Your task to perform on an android device: Open eBay Image 0: 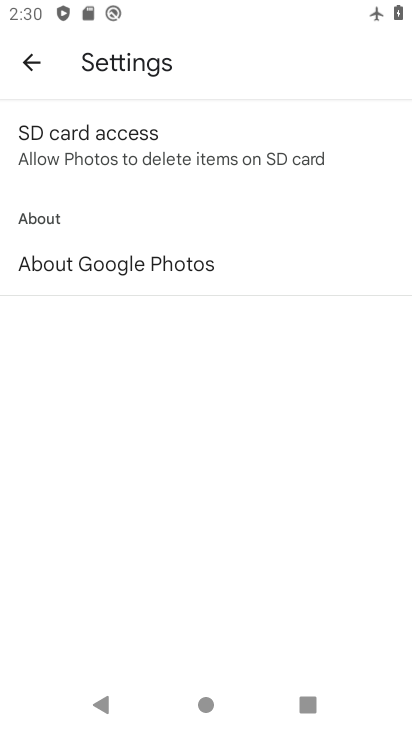
Step 0: press home button
Your task to perform on an android device: Open eBay Image 1: 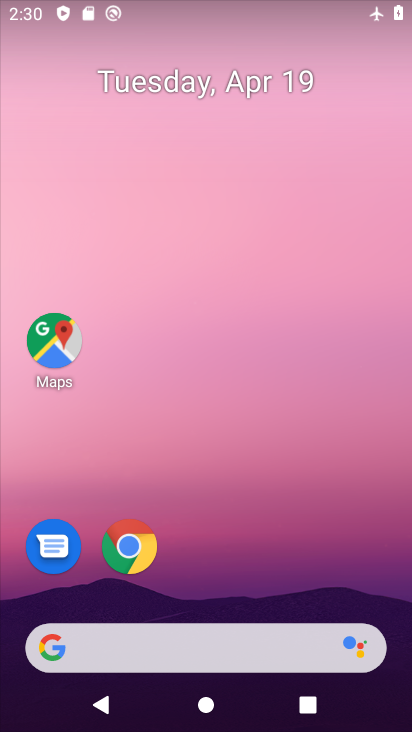
Step 1: click (136, 562)
Your task to perform on an android device: Open eBay Image 2: 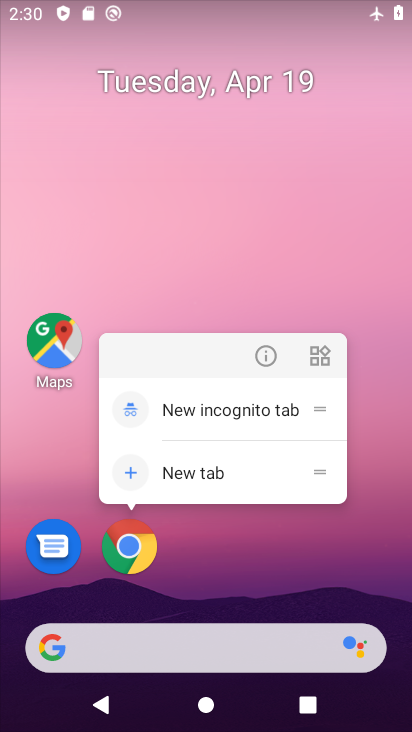
Step 2: click (112, 562)
Your task to perform on an android device: Open eBay Image 3: 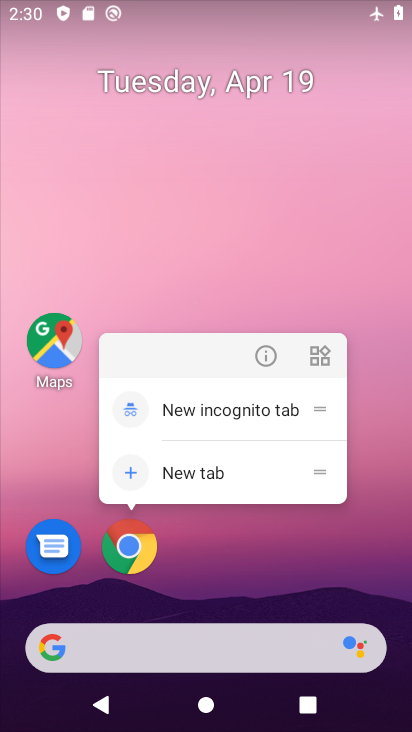
Step 3: click (135, 544)
Your task to perform on an android device: Open eBay Image 4: 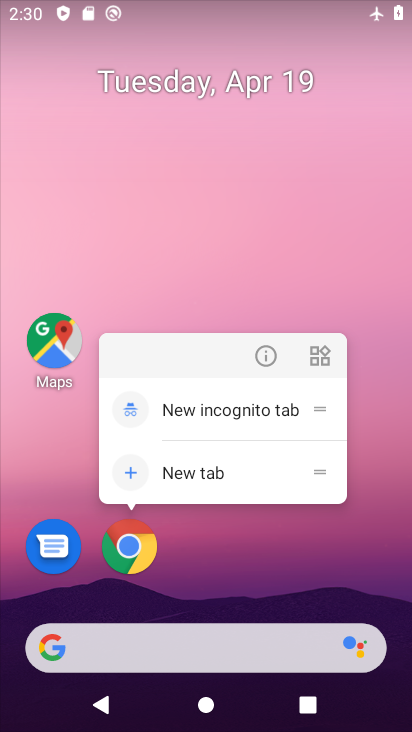
Step 4: click (135, 544)
Your task to perform on an android device: Open eBay Image 5: 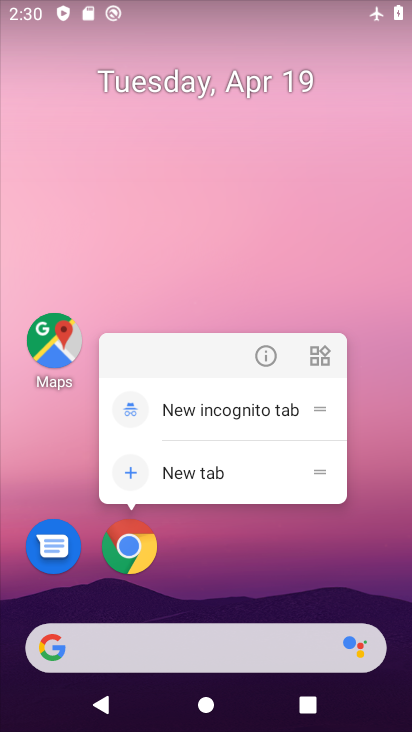
Step 5: click (134, 544)
Your task to perform on an android device: Open eBay Image 6: 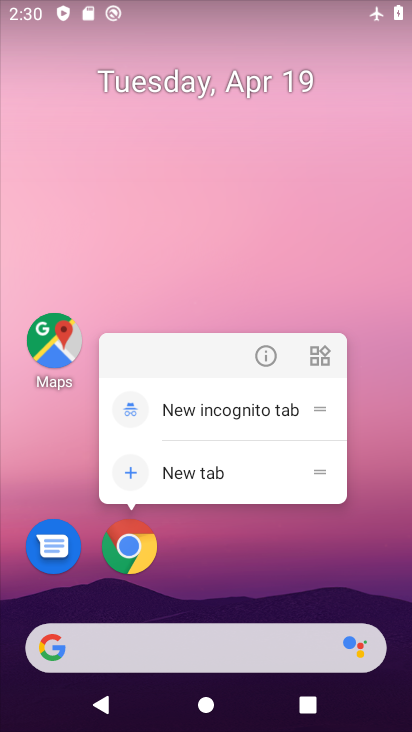
Step 6: click (134, 544)
Your task to perform on an android device: Open eBay Image 7: 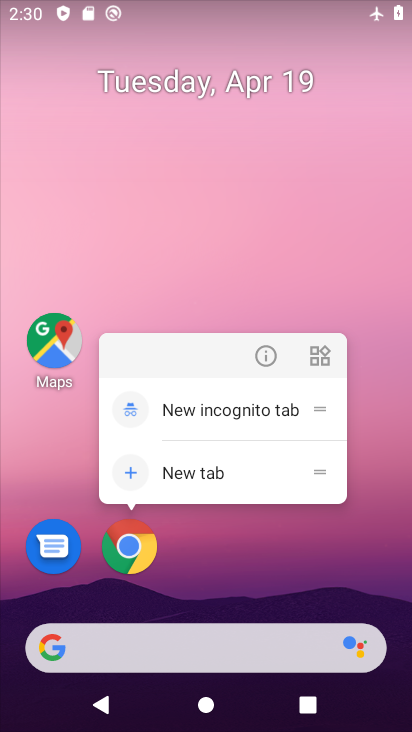
Step 7: click (134, 544)
Your task to perform on an android device: Open eBay Image 8: 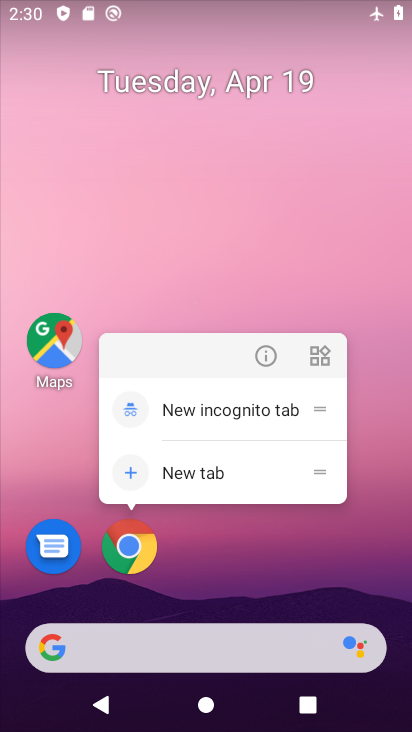
Step 8: click (122, 564)
Your task to perform on an android device: Open eBay Image 9: 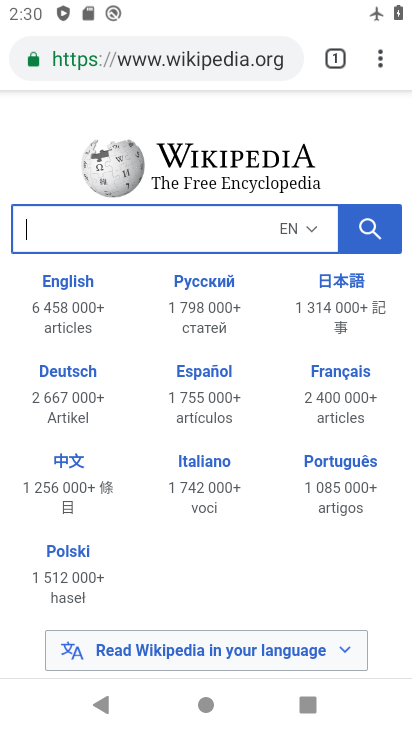
Step 9: click (199, 64)
Your task to perform on an android device: Open eBay Image 10: 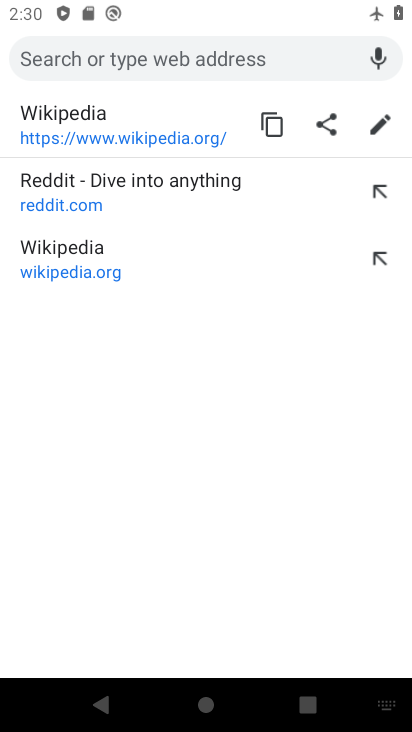
Step 10: type "ebay.com"
Your task to perform on an android device: Open eBay Image 11: 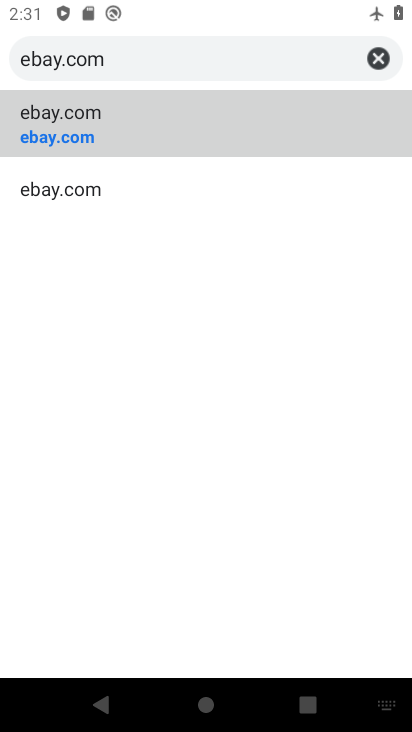
Step 11: click (210, 115)
Your task to perform on an android device: Open eBay Image 12: 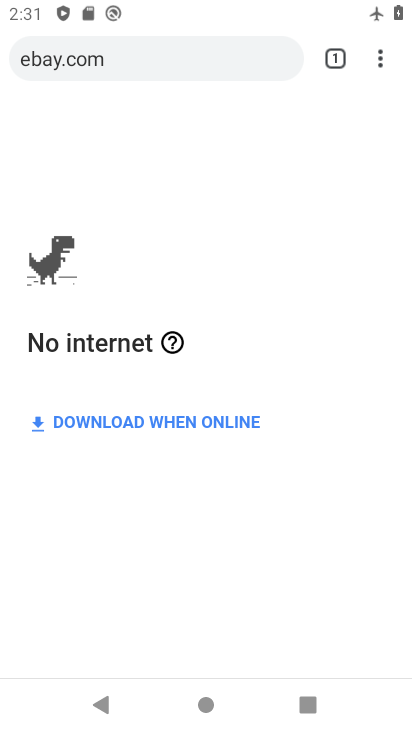
Step 12: task complete